Your task to perform on an android device: change the clock display to analog Image 0: 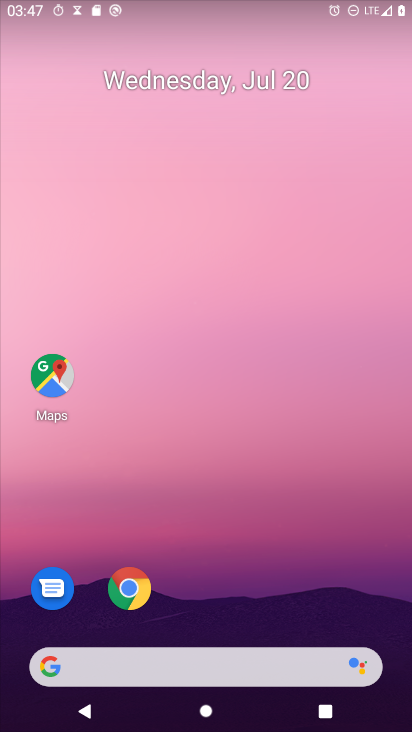
Step 0: drag from (232, 609) to (294, 18)
Your task to perform on an android device: change the clock display to analog Image 1: 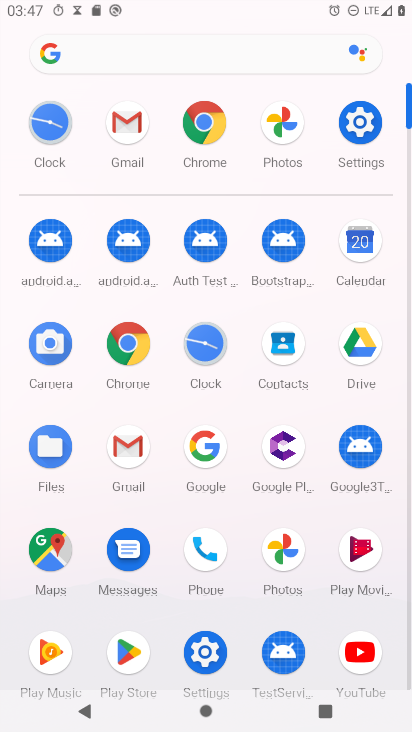
Step 1: click (194, 354)
Your task to perform on an android device: change the clock display to analog Image 2: 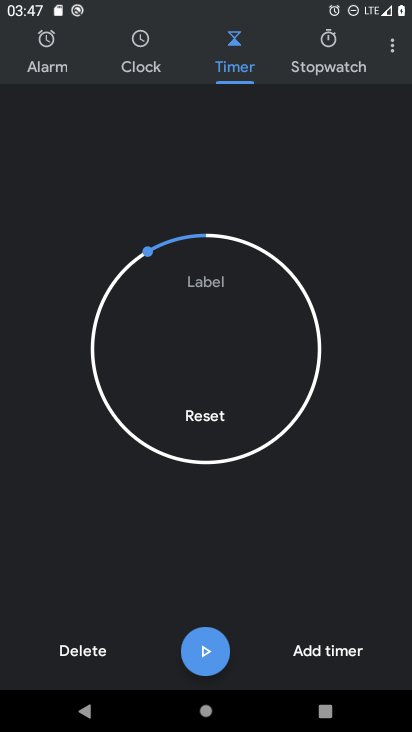
Step 2: click (389, 47)
Your task to perform on an android device: change the clock display to analog Image 3: 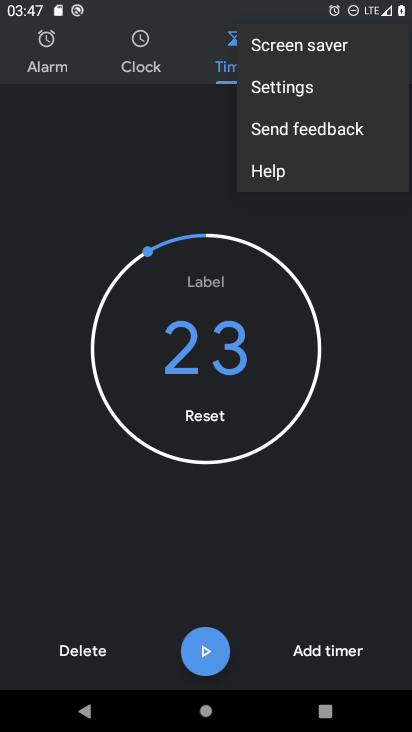
Step 3: click (301, 74)
Your task to perform on an android device: change the clock display to analog Image 4: 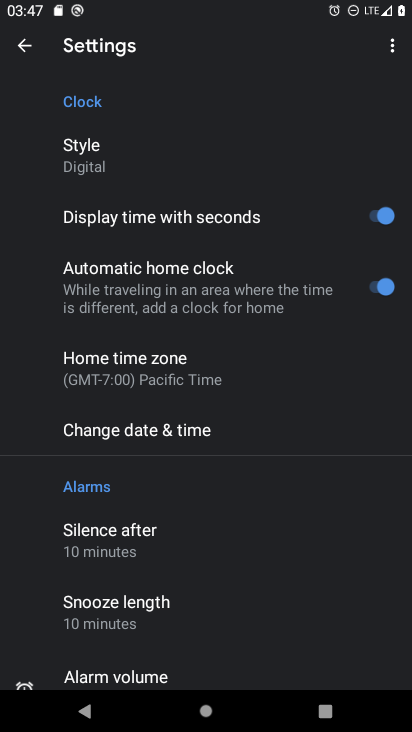
Step 4: click (80, 136)
Your task to perform on an android device: change the clock display to analog Image 5: 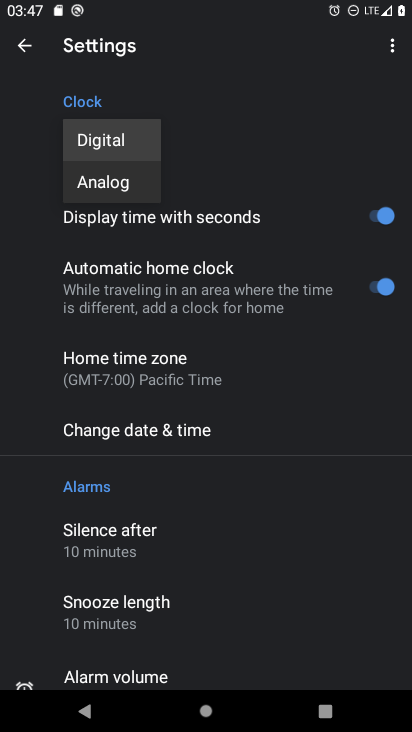
Step 5: click (94, 176)
Your task to perform on an android device: change the clock display to analog Image 6: 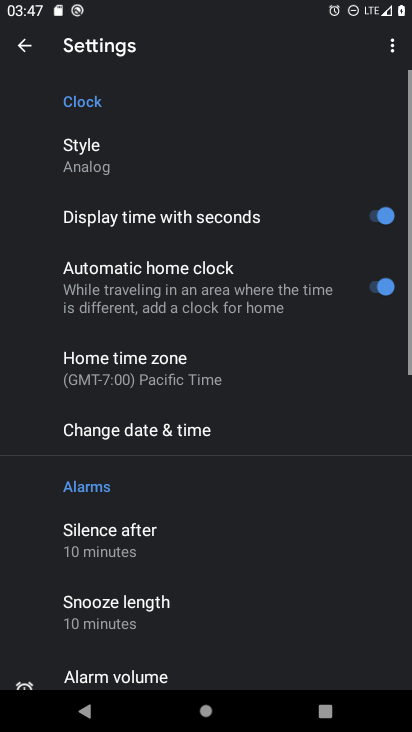
Step 6: task complete